Your task to perform on an android device: change timer sound Image 0: 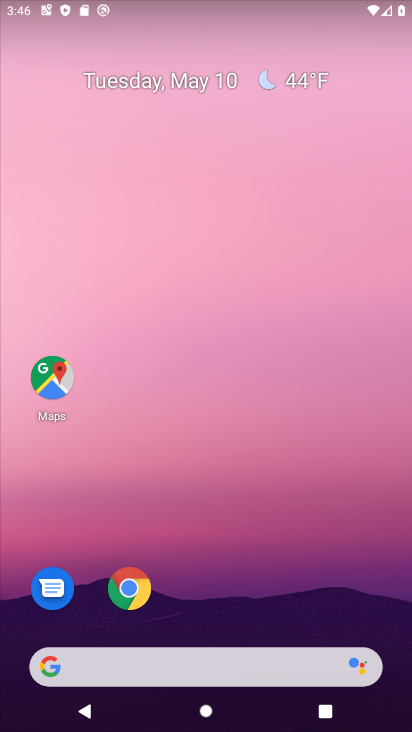
Step 0: drag from (280, 565) to (210, 424)
Your task to perform on an android device: change timer sound Image 1: 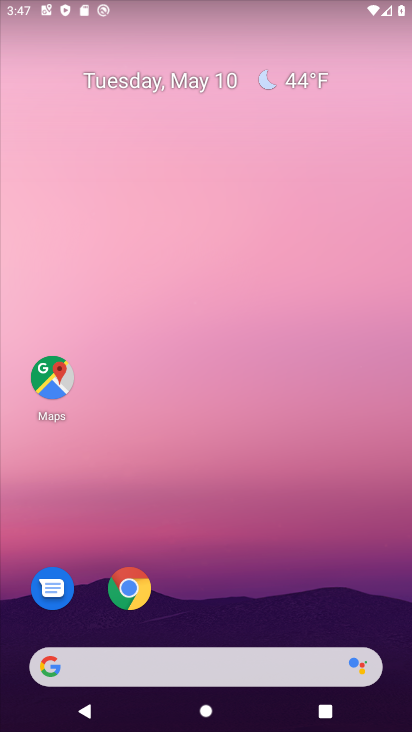
Step 1: drag from (303, 573) to (261, 120)
Your task to perform on an android device: change timer sound Image 2: 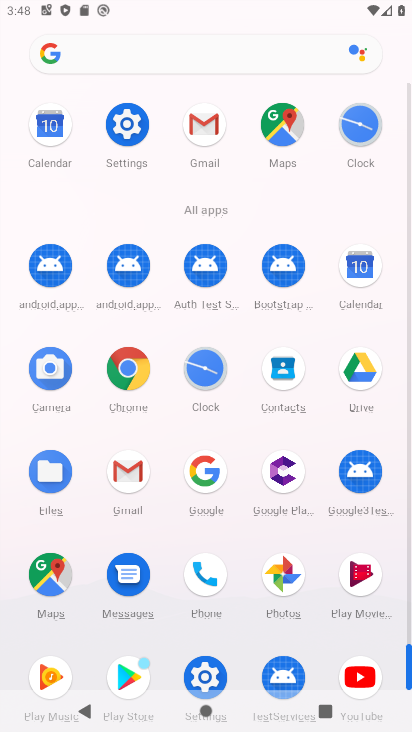
Step 2: click (209, 376)
Your task to perform on an android device: change timer sound Image 3: 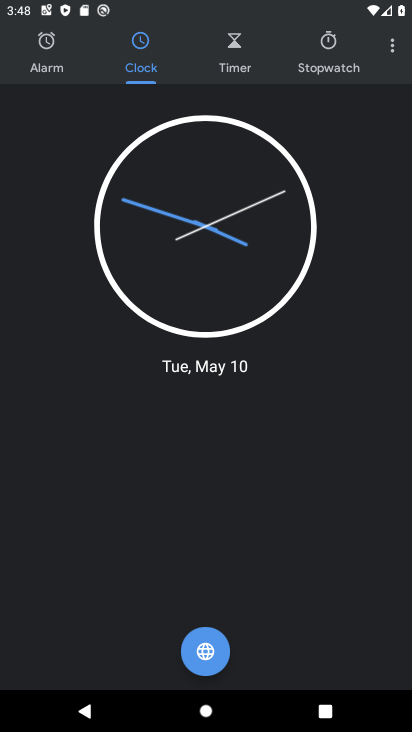
Step 3: click (391, 52)
Your task to perform on an android device: change timer sound Image 4: 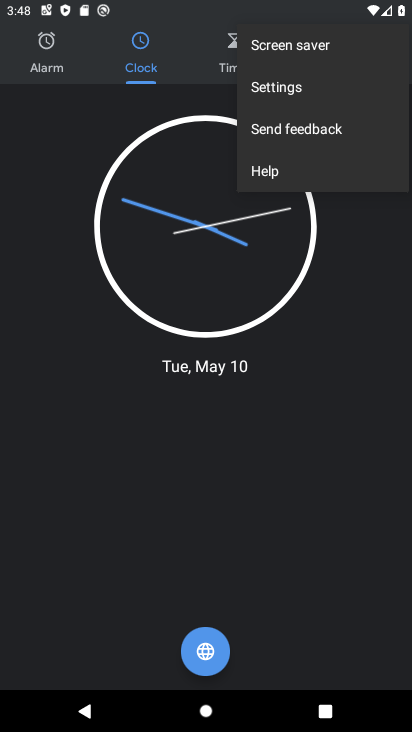
Step 4: click (316, 97)
Your task to perform on an android device: change timer sound Image 5: 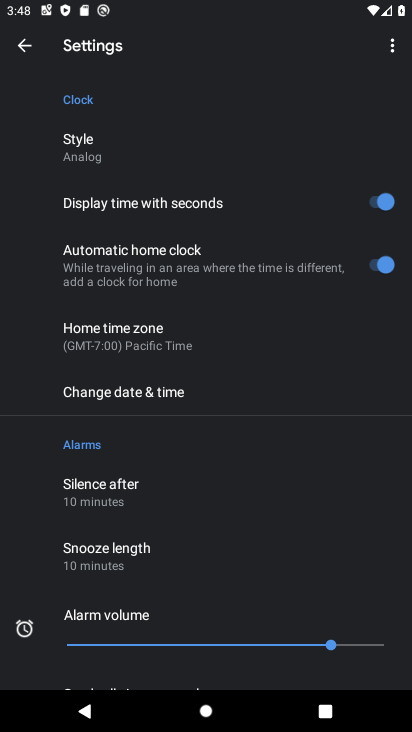
Step 5: drag from (229, 601) to (204, 361)
Your task to perform on an android device: change timer sound Image 6: 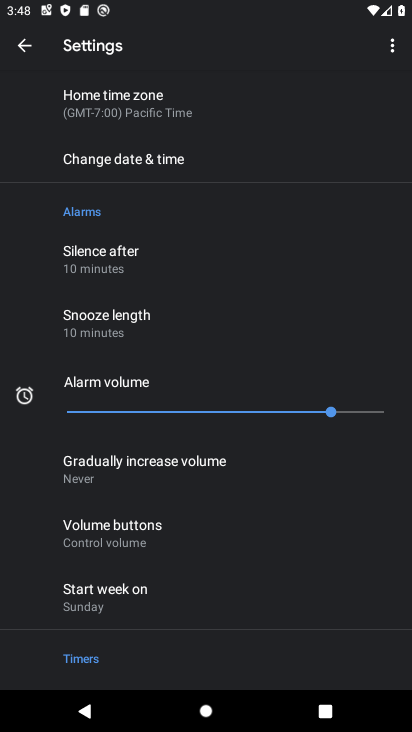
Step 6: drag from (173, 610) to (171, 333)
Your task to perform on an android device: change timer sound Image 7: 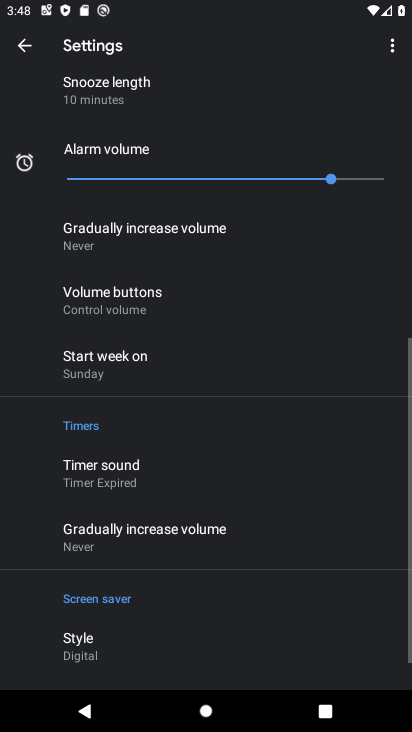
Step 7: click (148, 468)
Your task to perform on an android device: change timer sound Image 8: 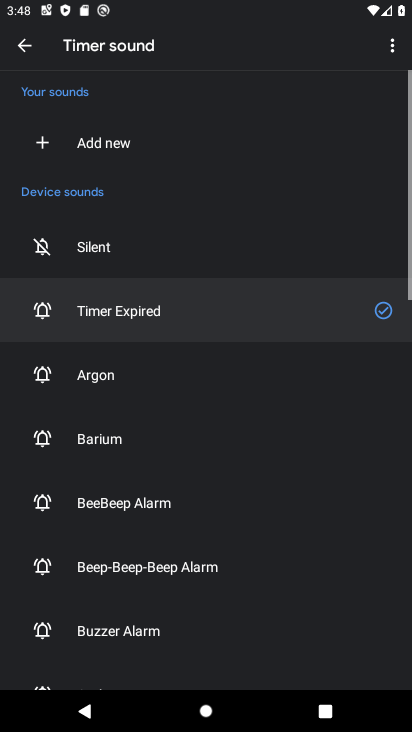
Step 8: click (173, 572)
Your task to perform on an android device: change timer sound Image 9: 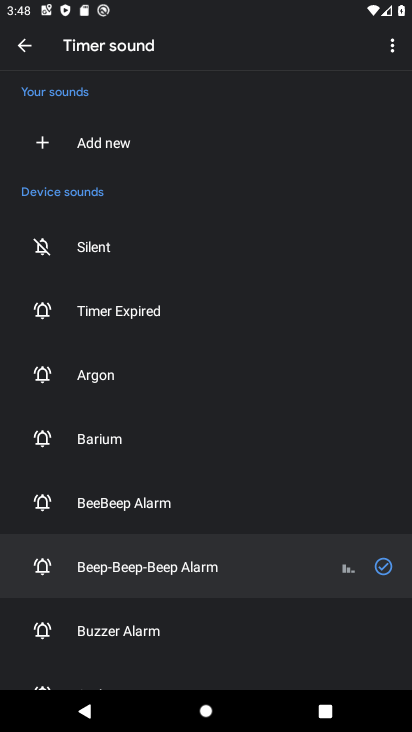
Step 9: task complete